Your task to perform on an android device: delete browsing data in the chrome app Image 0: 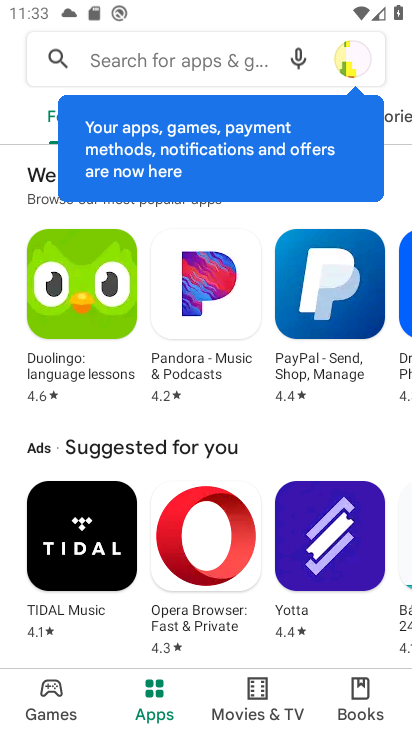
Step 0: press home button
Your task to perform on an android device: delete browsing data in the chrome app Image 1: 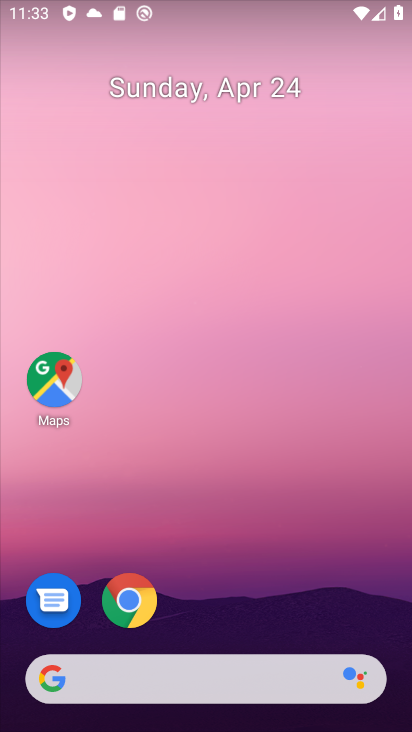
Step 1: click (133, 610)
Your task to perform on an android device: delete browsing data in the chrome app Image 2: 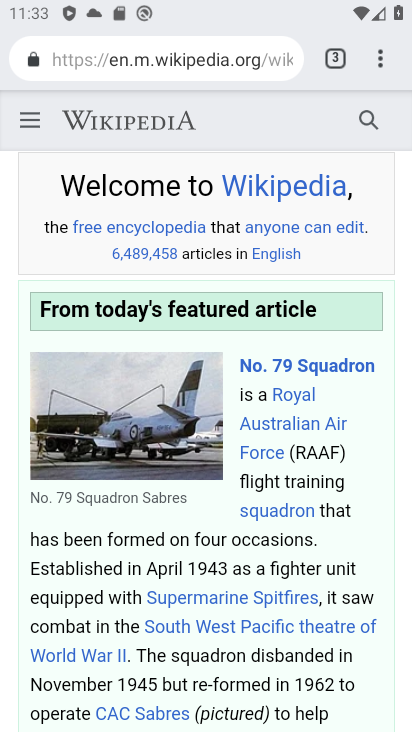
Step 2: click (378, 58)
Your task to perform on an android device: delete browsing data in the chrome app Image 3: 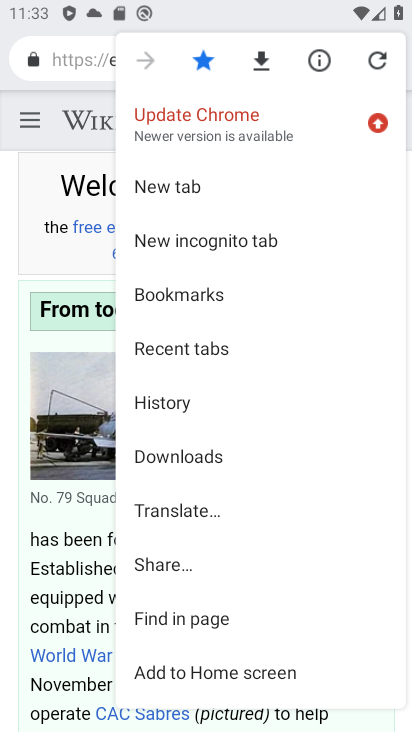
Step 3: click (168, 399)
Your task to perform on an android device: delete browsing data in the chrome app Image 4: 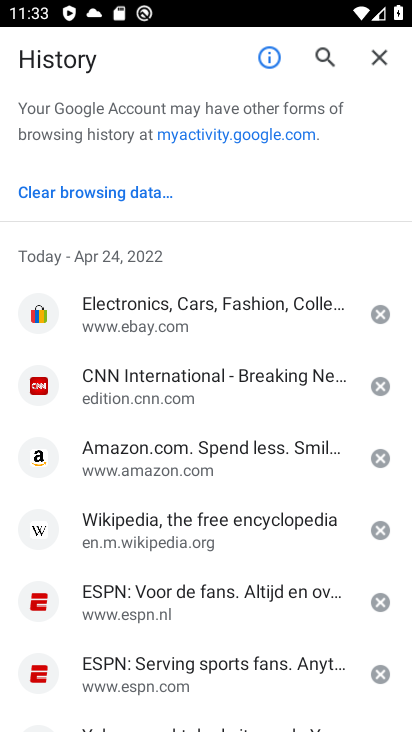
Step 4: click (80, 185)
Your task to perform on an android device: delete browsing data in the chrome app Image 5: 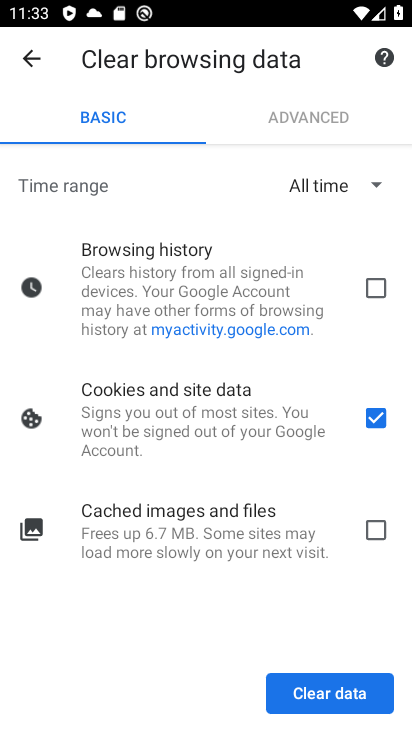
Step 5: click (379, 293)
Your task to perform on an android device: delete browsing data in the chrome app Image 6: 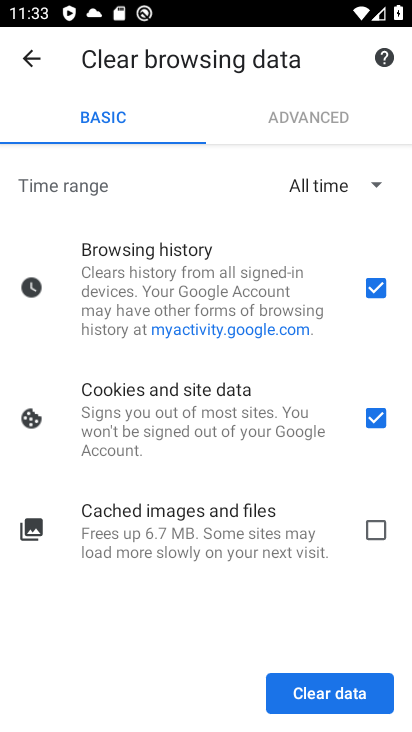
Step 6: click (376, 413)
Your task to perform on an android device: delete browsing data in the chrome app Image 7: 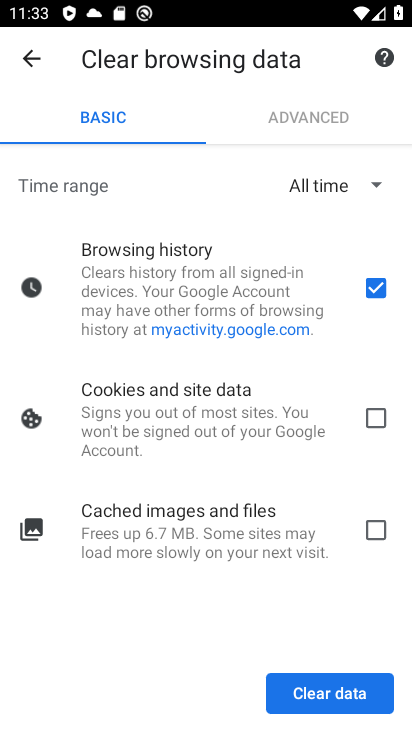
Step 7: click (318, 696)
Your task to perform on an android device: delete browsing data in the chrome app Image 8: 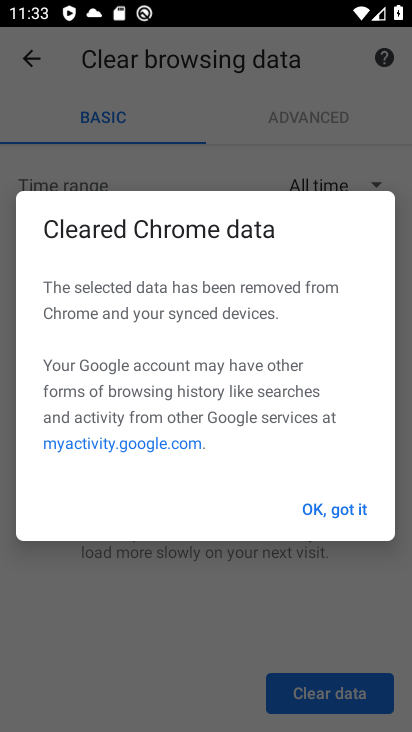
Step 8: click (329, 508)
Your task to perform on an android device: delete browsing data in the chrome app Image 9: 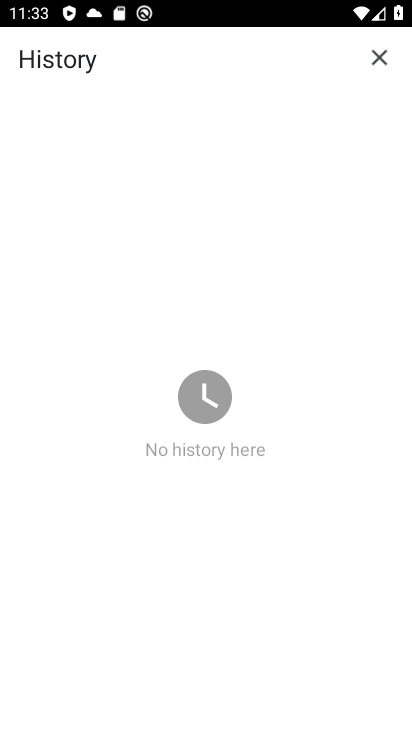
Step 9: task complete